Your task to perform on an android device: turn off improve location accuracy Image 0: 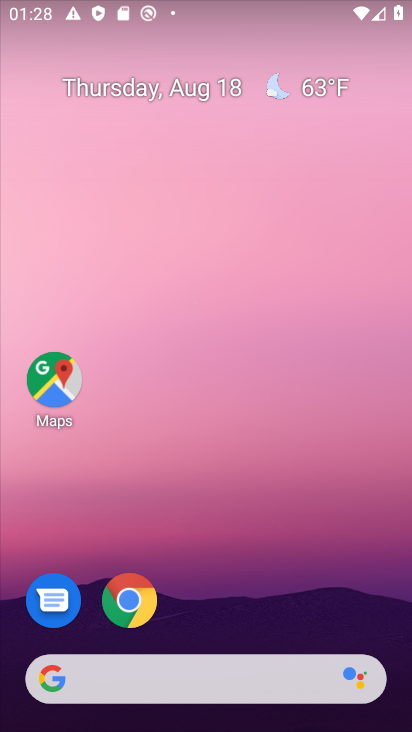
Step 0: drag from (233, 612) to (191, 267)
Your task to perform on an android device: turn off improve location accuracy Image 1: 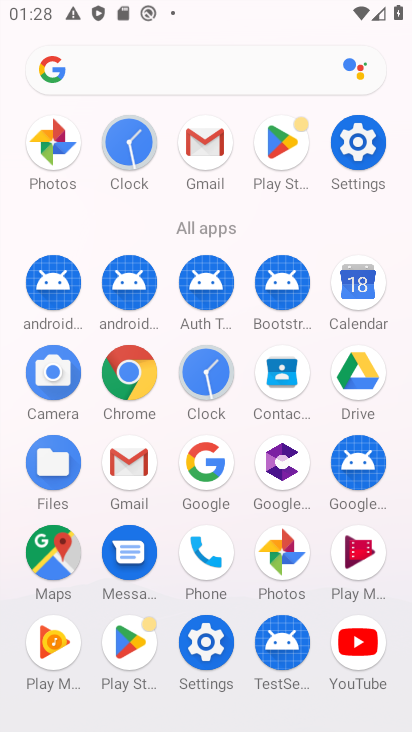
Step 1: click (356, 143)
Your task to perform on an android device: turn off improve location accuracy Image 2: 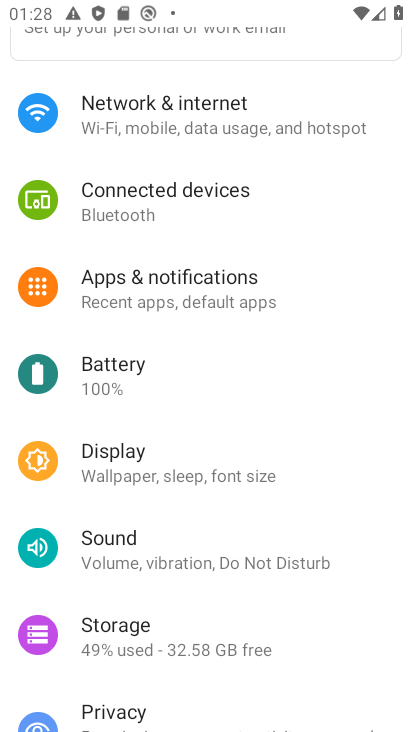
Step 2: drag from (187, 607) to (164, 397)
Your task to perform on an android device: turn off improve location accuracy Image 3: 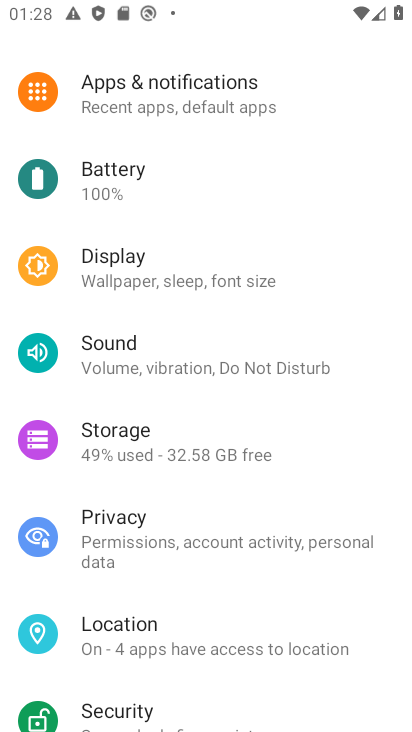
Step 3: click (129, 621)
Your task to perform on an android device: turn off improve location accuracy Image 4: 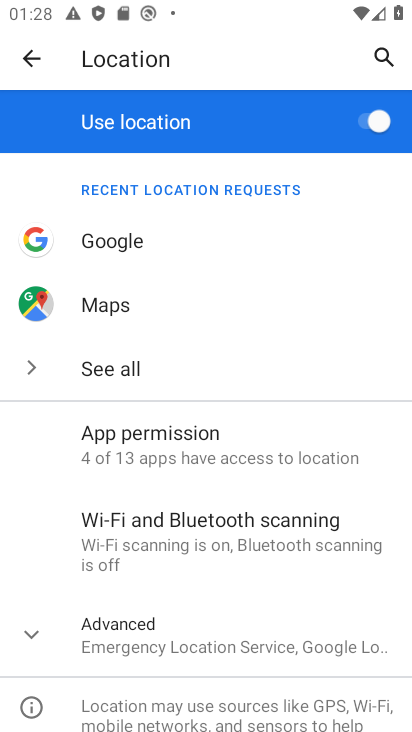
Step 4: click (115, 632)
Your task to perform on an android device: turn off improve location accuracy Image 5: 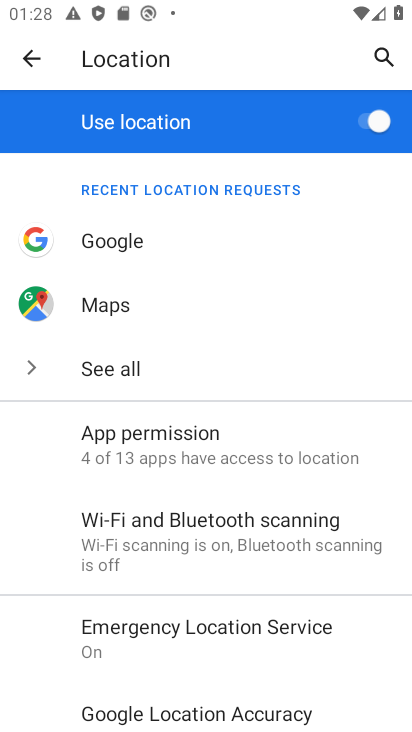
Step 5: click (170, 708)
Your task to perform on an android device: turn off improve location accuracy Image 6: 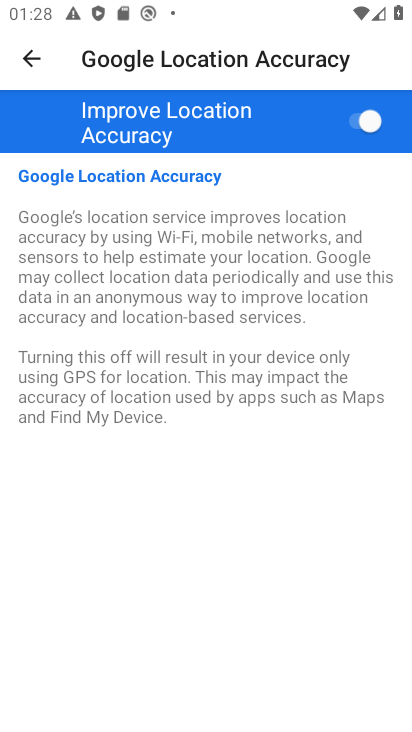
Step 6: click (362, 125)
Your task to perform on an android device: turn off improve location accuracy Image 7: 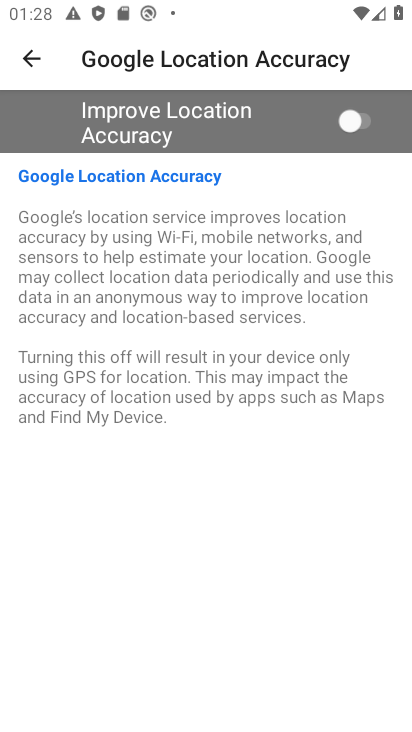
Step 7: task complete